Your task to perform on an android device: toggle improve location accuracy Image 0: 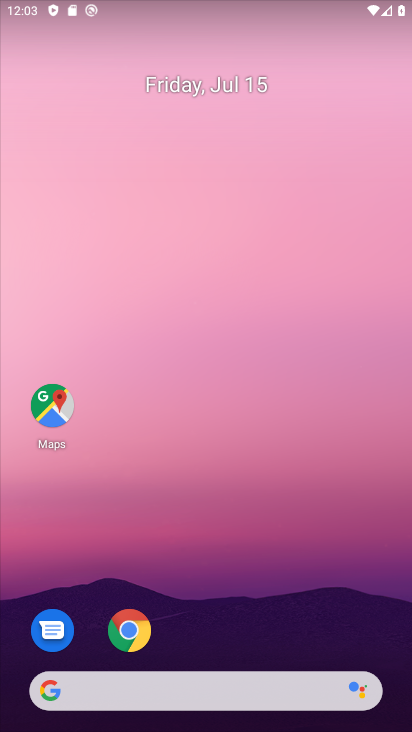
Step 0: drag from (190, 544) to (175, 14)
Your task to perform on an android device: toggle improve location accuracy Image 1: 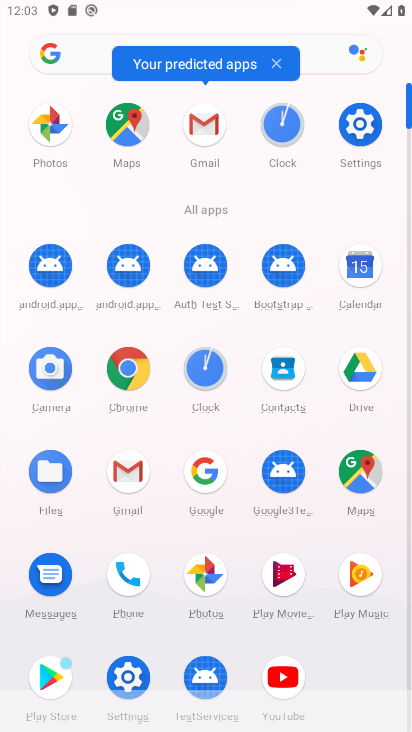
Step 1: click (363, 130)
Your task to perform on an android device: toggle improve location accuracy Image 2: 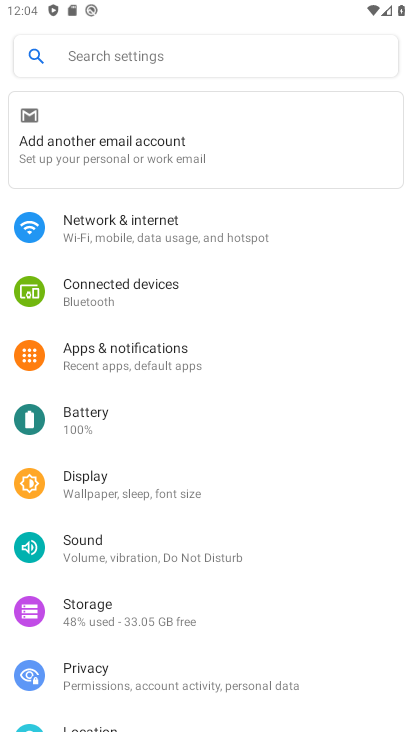
Step 2: drag from (147, 633) to (147, 282)
Your task to perform on an android device: toggle improve location accuracy Image 3: 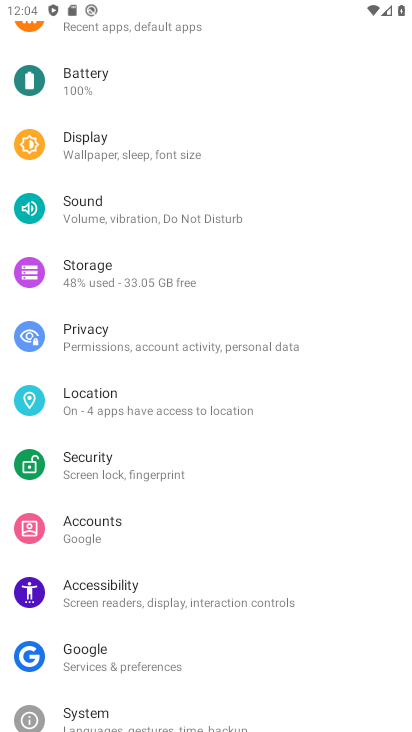
Step 3: click (90, 403)
Your task to perform on an android device: toggle improve location accuracy Image 4: 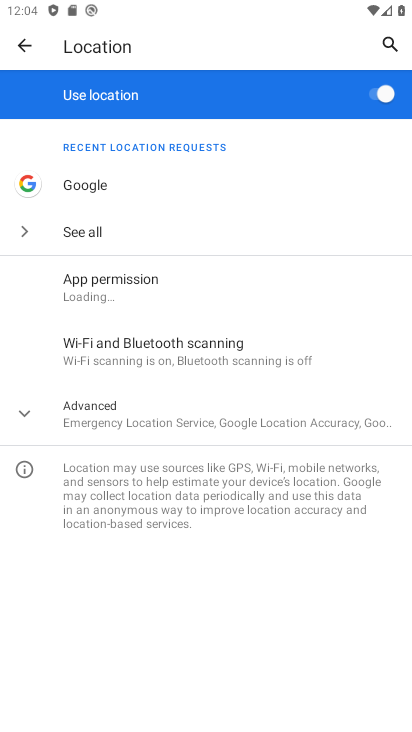
Step 4: click (108, 408)
Your task to perform on an android device: toggle improve location accuracy Image 5: 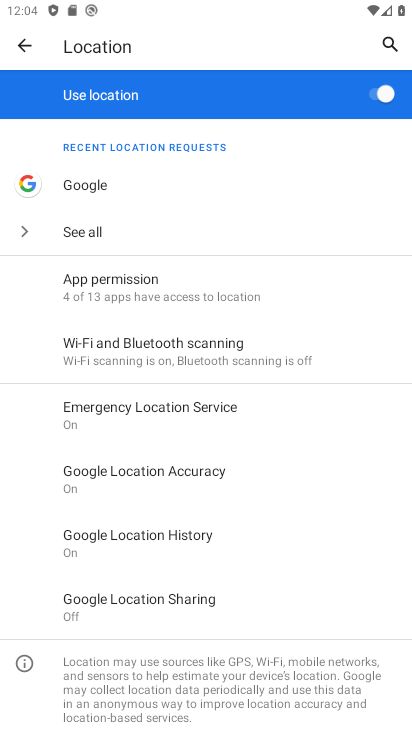
Step 5: click (175, 471)
Your task to perform on an android device: toggle improve location accuracy Image 6: 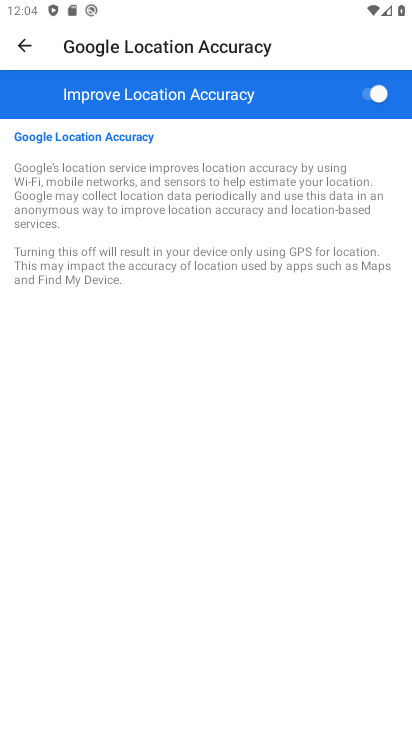
Step 6: click (370, 94)
Your task to perform on an android device: toggle improve location accuracy Image 7: 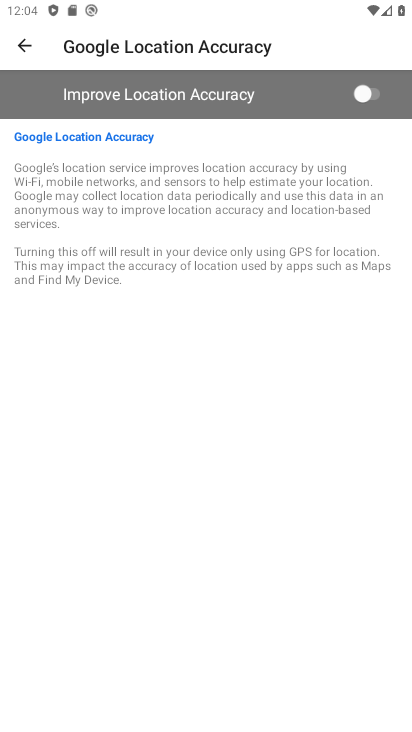
Step 7: task complete